Your task to perform on an android device: Open Chrome and go to settings Image 0: 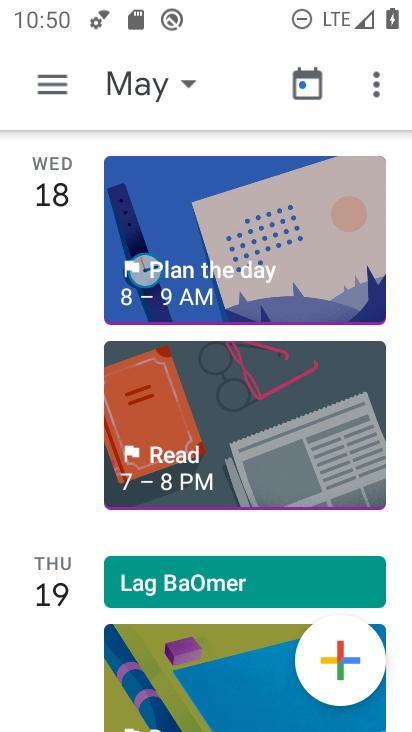
Step 0: press back button
Your task to perform on an android device: Open Chrome and go to settings Image 1: 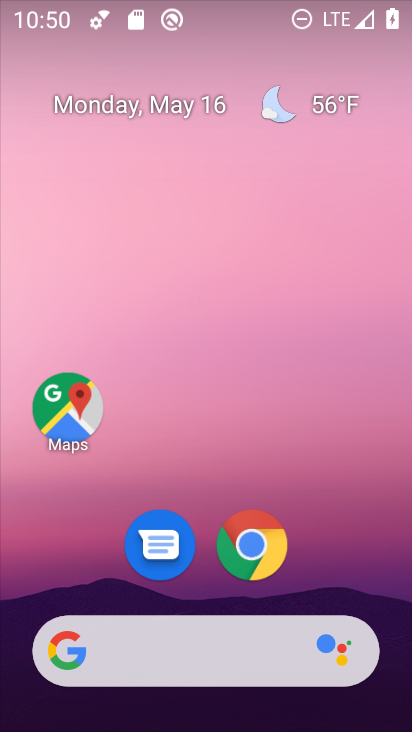
Step 1: click (256, 544)
Your task to perform on an android device: Open Chrome and go to settings Image 2: 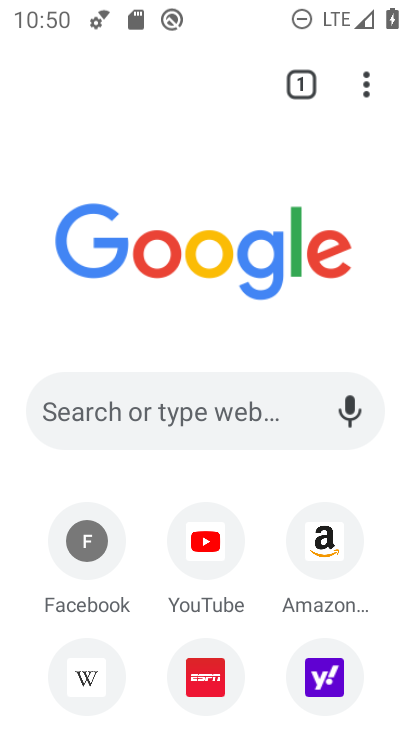
Step 2: click (366, 90)
Your task to perform on an android device: Open Chrome and go to settings Image 3: 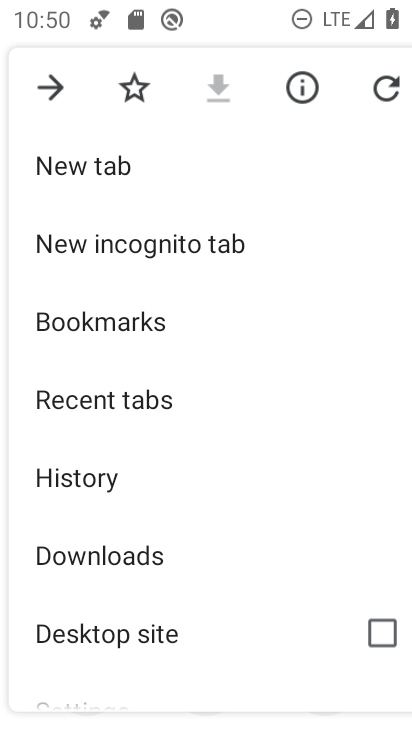
Step 3: drag from (188, 500) to (192, 386)
Your task to perform on an android device: Open Chrome and go to settings Image 4: 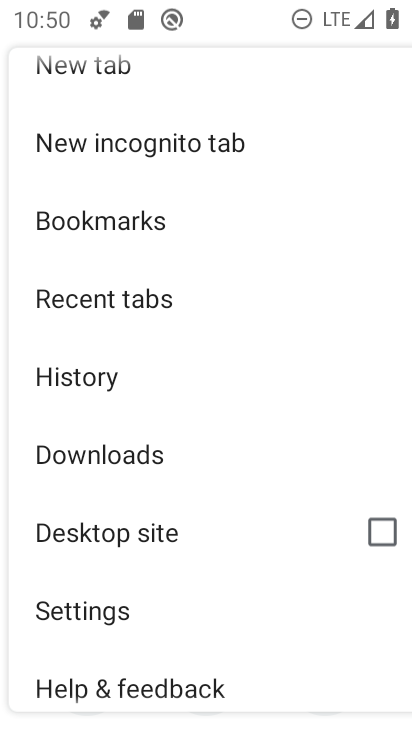
Step 4: drag from (107, 504) to (190, 390)
Your task to perform on an android device: Open Chrome and go to settings Image 5: 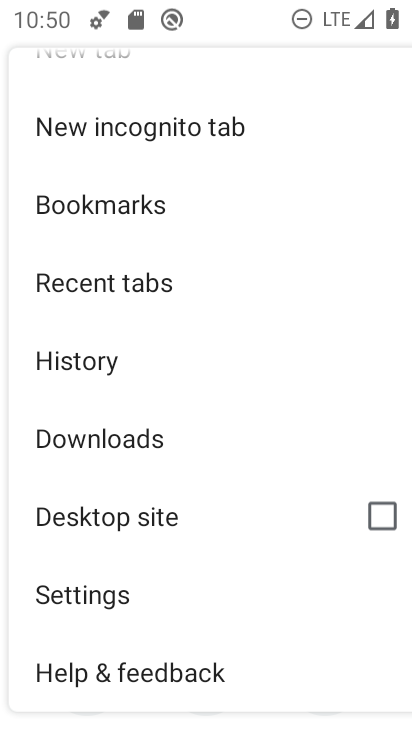
Step 5: click (75, 591)
Your task to perform on an android device: Open Chrome and go to settings Image 6: 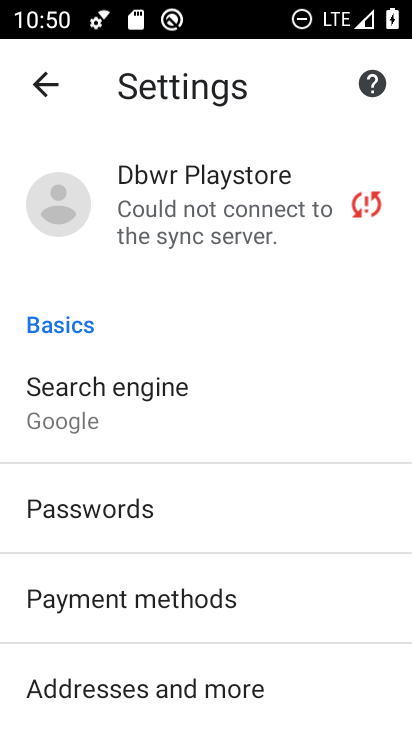
Step 6: task complete